Your task to perform on an android device: Go to Maps Image 0: 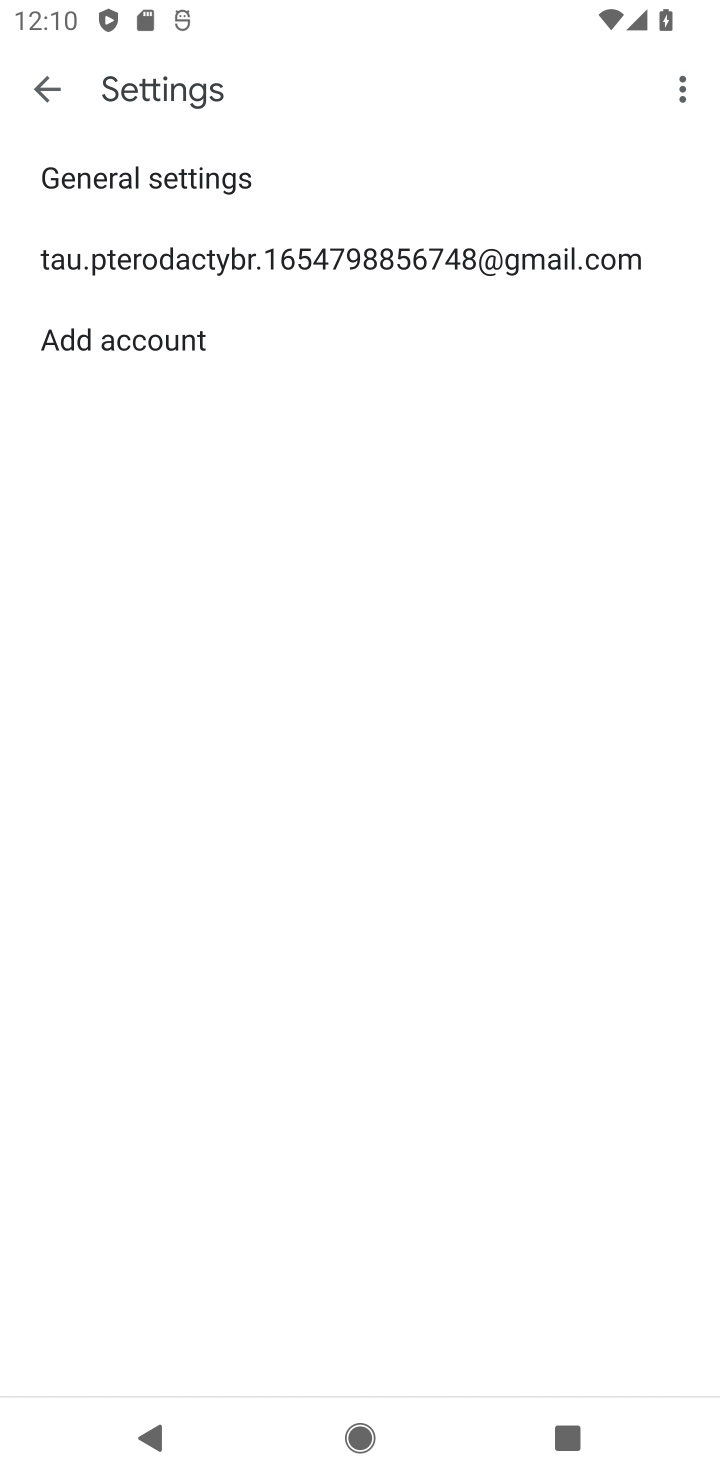
Step 0: press home button
Your task to perform on an android device: Go to Maps Image 1: 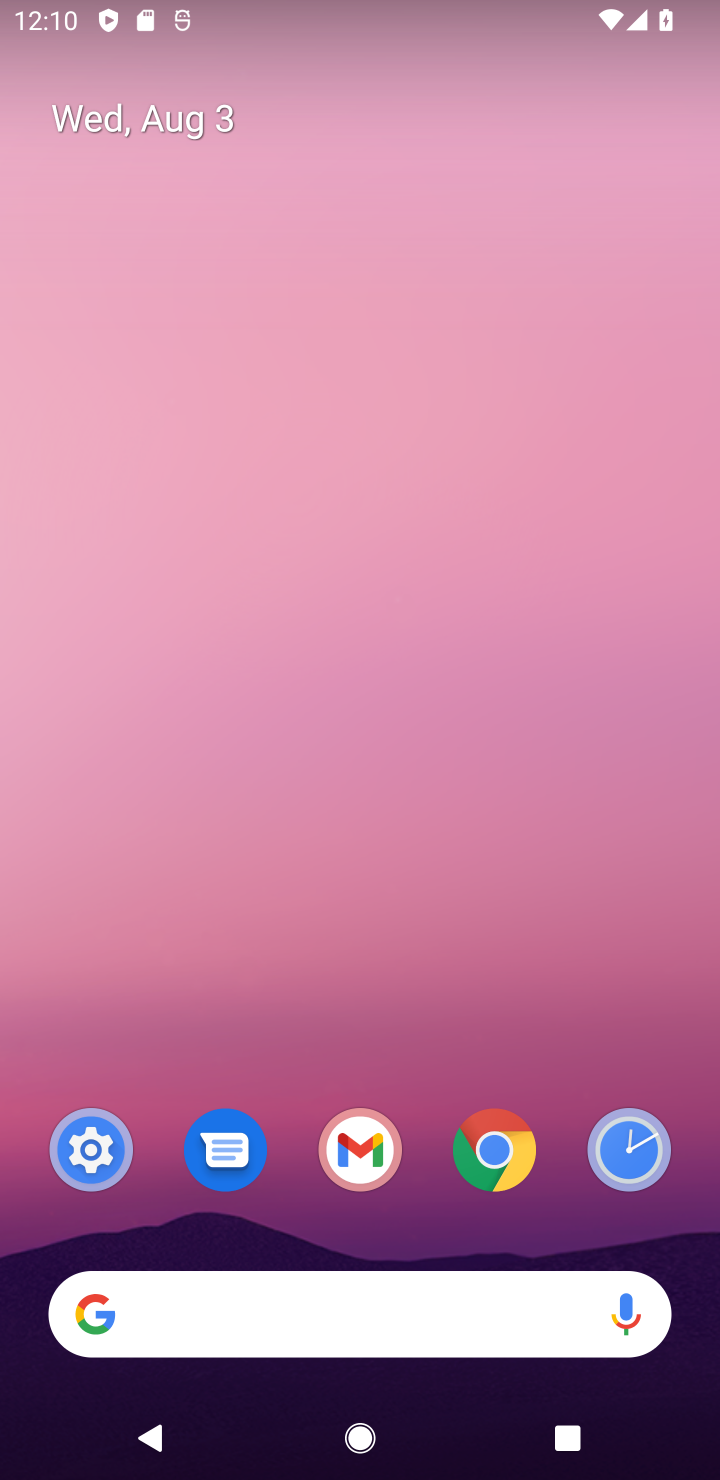
Step 1: drag from (540, 1012) to (583, 312)
Your task to perform on an android device: Go to Maps Image 2: 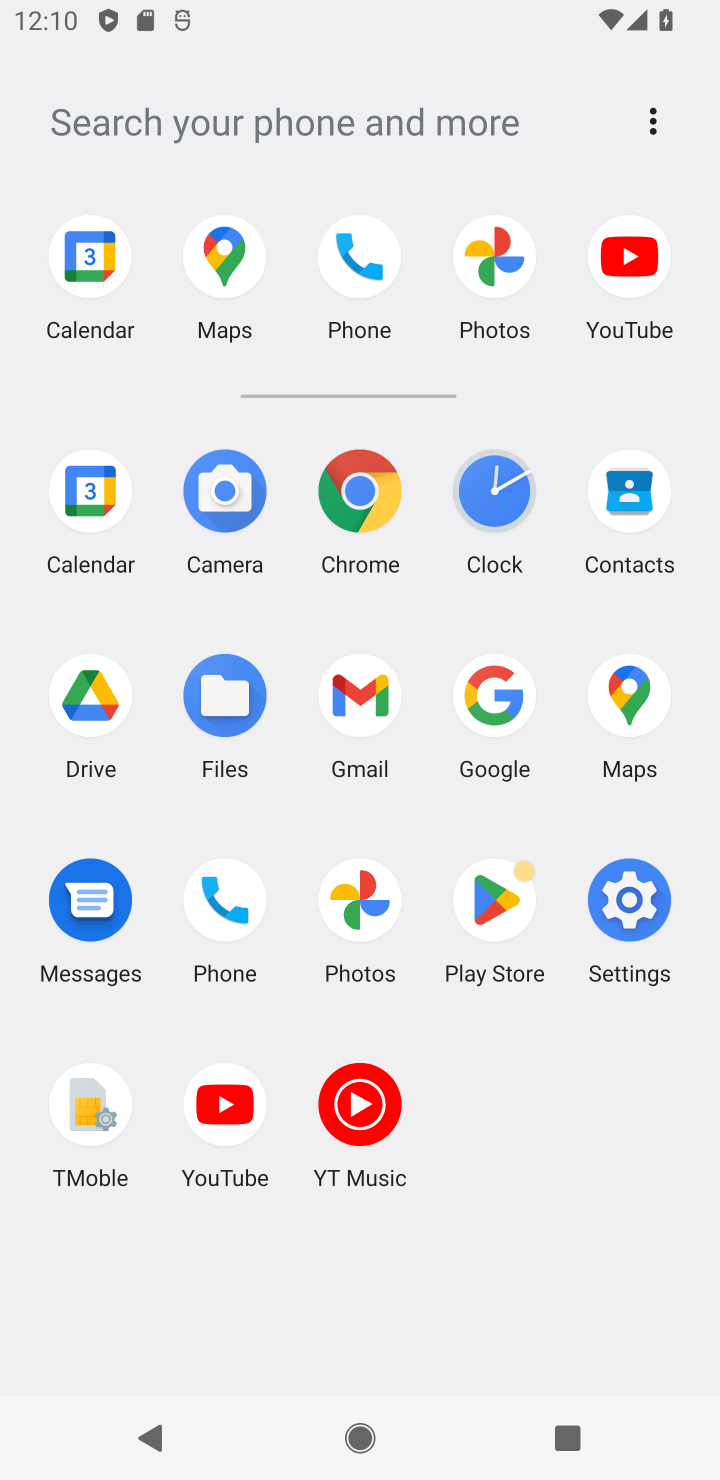
Step 2: click (635, 697)
Your task to perform on an android device: Go to Maps Image 3: 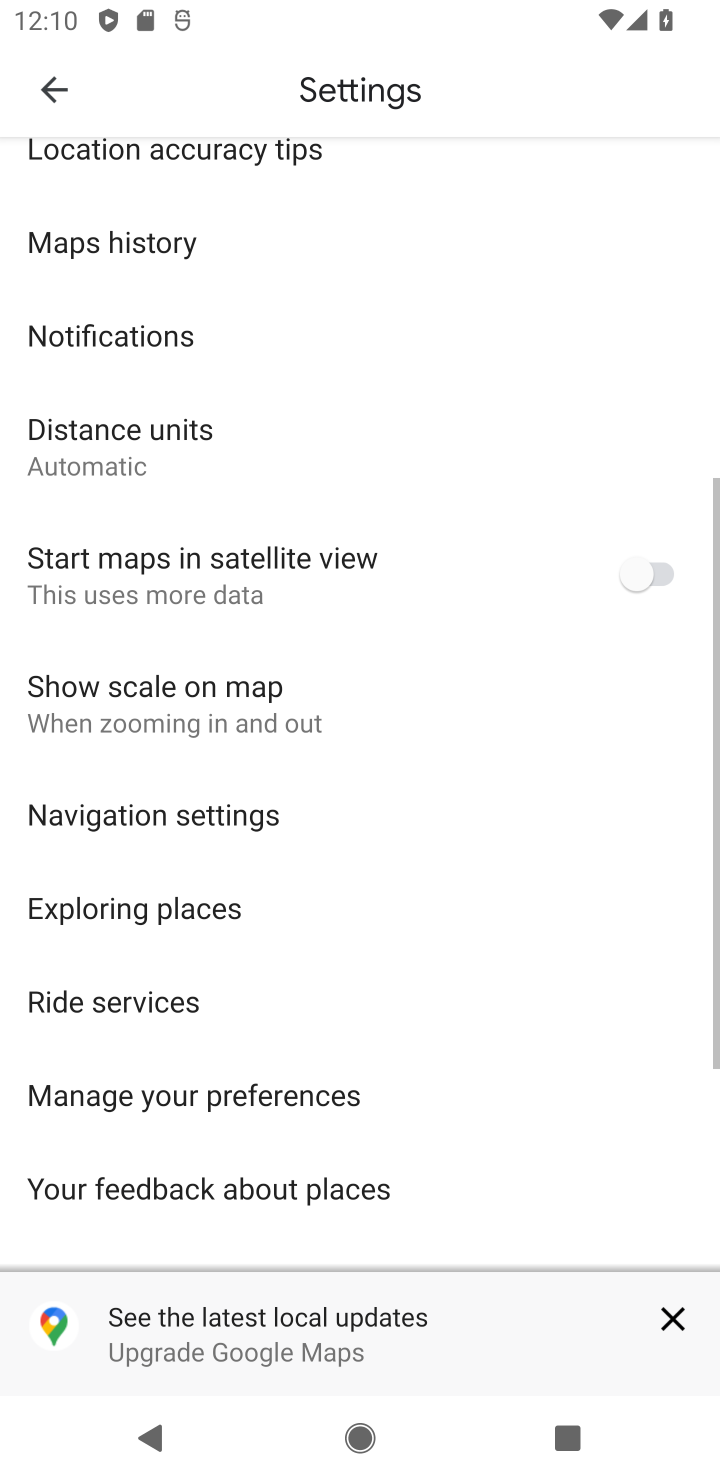
Step 3: task complete